Your task to perform on an android device: toggle improve location accuracy Image 0: 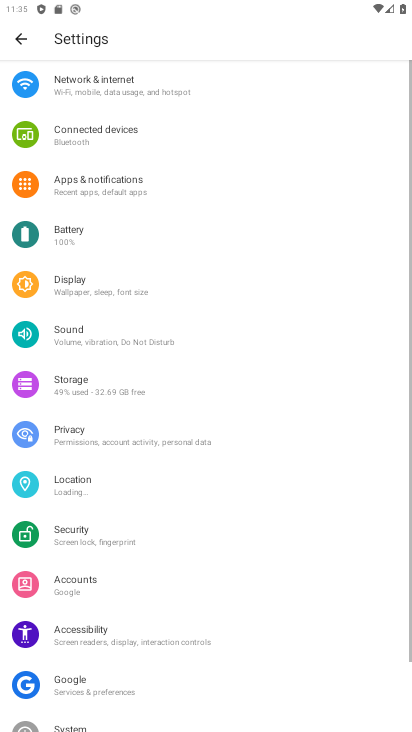
Step 0: press home button
Your task to perform on an android device: toggle improve location accuracy Image 1: 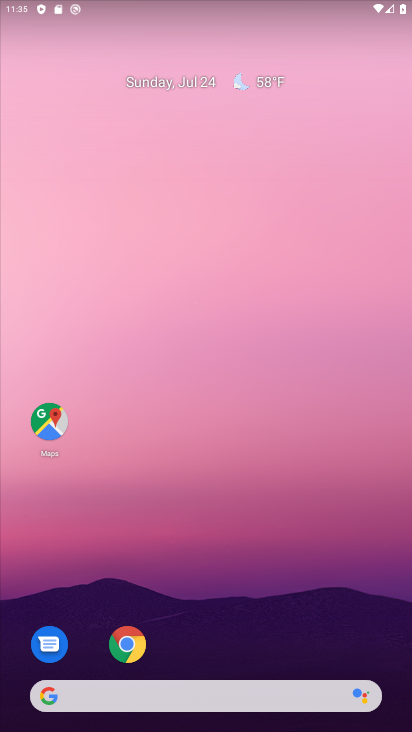
Step 1: drag from (330, 588) to (307, 58)
Your task to perform on an android device: toggle improve location accuracy Image 2: 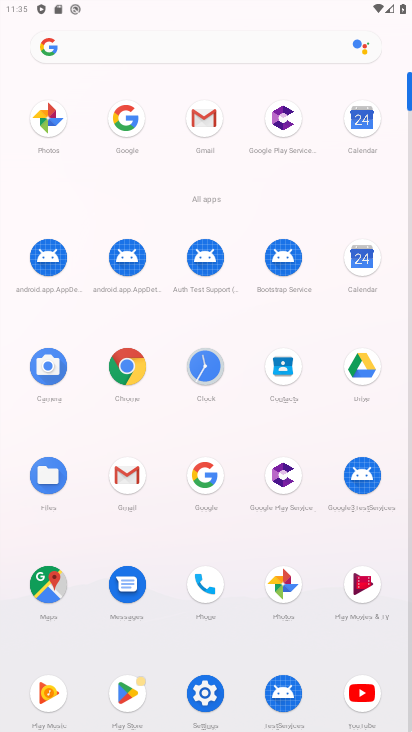
Step 2: click (208, 697)
Your task to perform on an android device: toggle improve location accuracy Image 3: 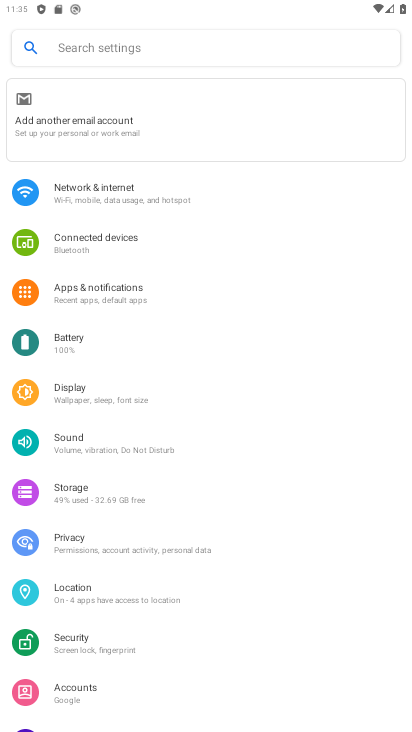
Step 3: click (119, 589)
Your task to perform on an android device: toggle improve location accuracy Image 4: 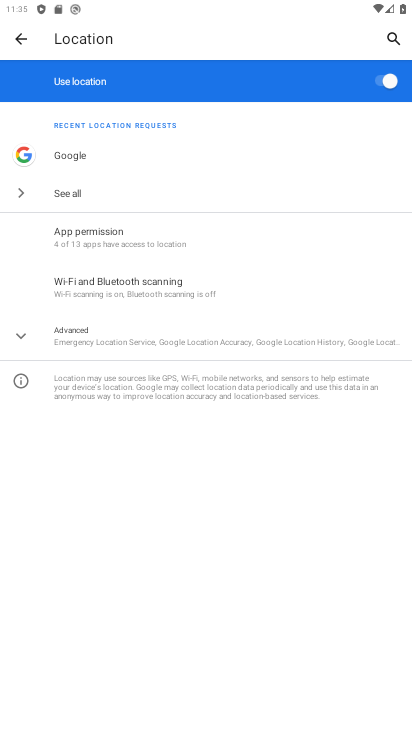
Step 4: click (155, 338)
Your task to perform on an android device: toggle improve location accuracy Image 5: 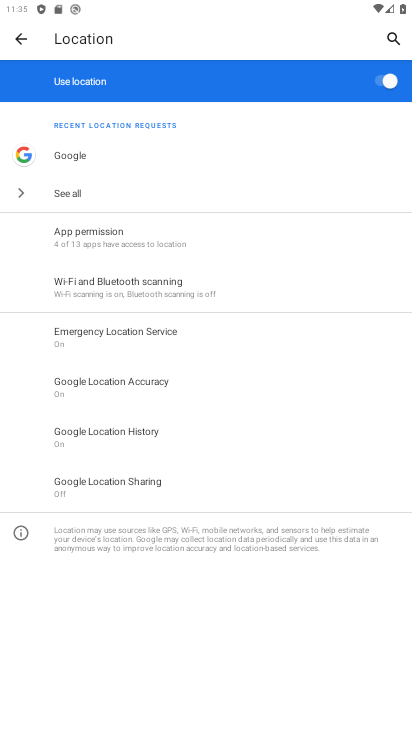
Step 5: click (105, 395)
Your task to perform on an android device: toggle improve location accuracy Image 6: 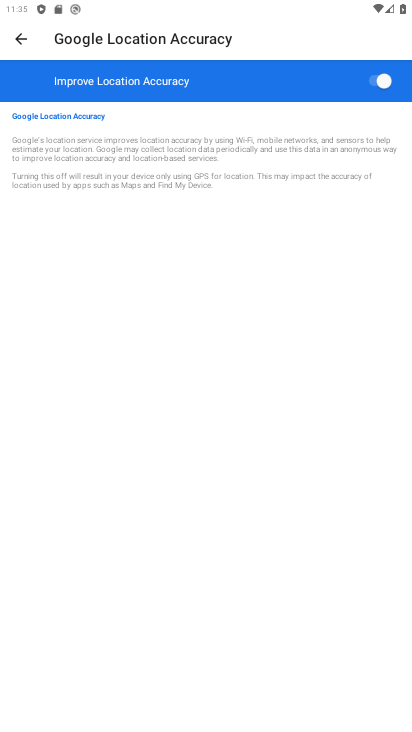
Step 6: click (380, 82)
Your task to perform on an android device: toggle improve location accuracy Image 7: 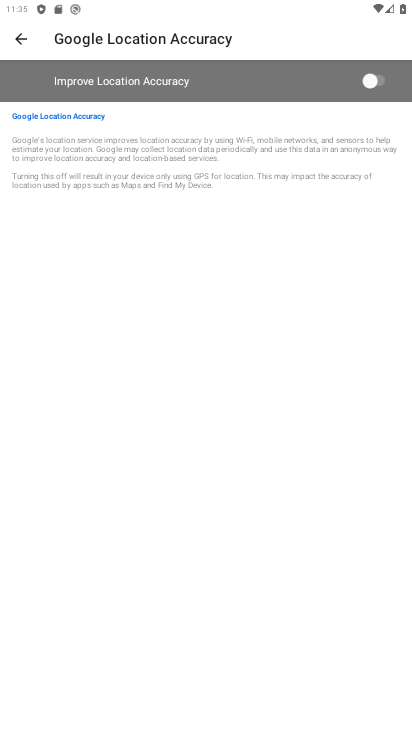
Step 7: task complete